Your task to perform on an android device: Open CNN.com Image 0: 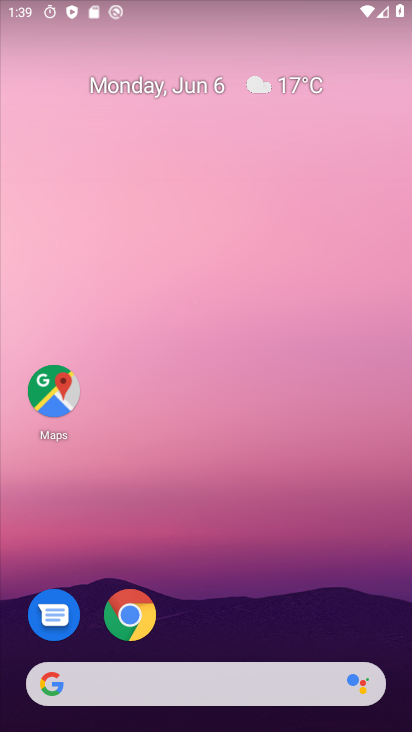
Step 0: click (401, 512)
Your task to perform on an android device: Open CNN.com Image 1: 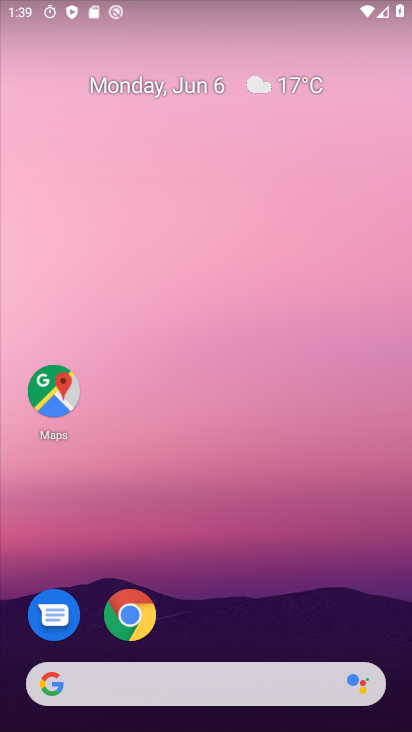
Step 1: drag from (212, 606) to (260, 258)
Your task to perform on an android device: Open CNN.com Image 2: 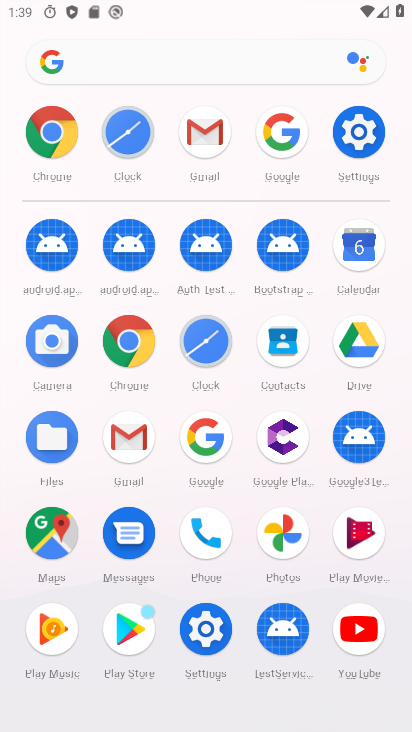
Step 2: click (151, 59)
Your task to perform on an android device: Open CNN.com Image 3: 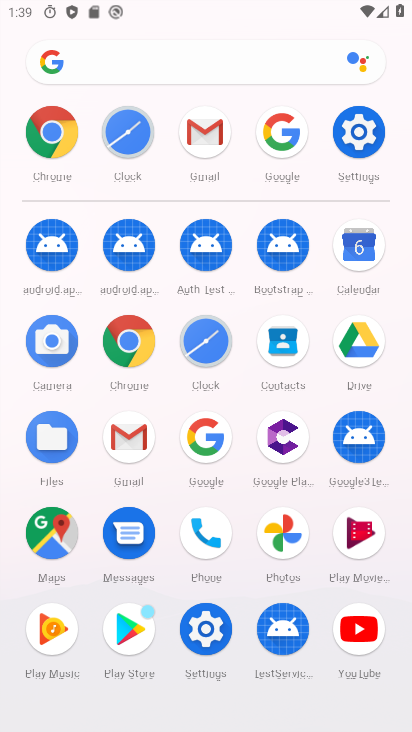
Step 3: click (150, 59)
Your task to perform on an android device: Open CNN.com Image 4: 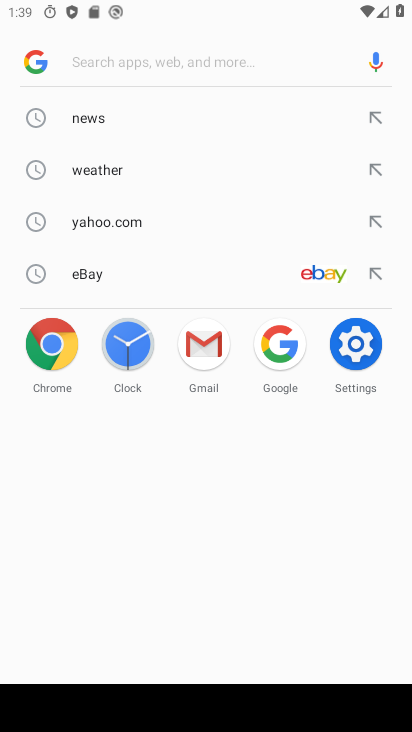
Step 4: type "CNN.com"
Your task to perform on an android device: Open CNN.com Image 5: 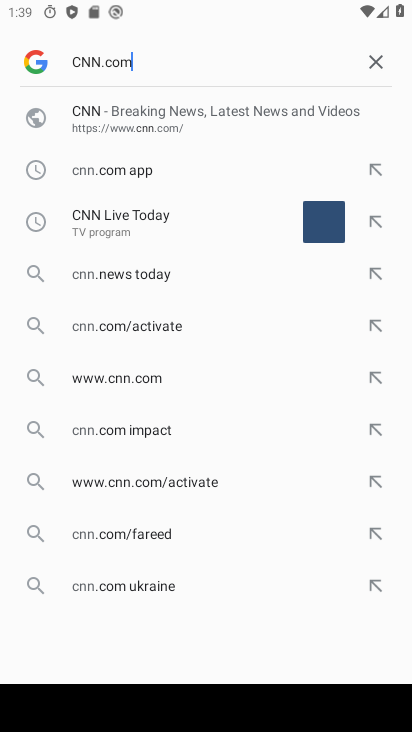
Step 5: type ""
Your task to perform on an android device: Open CNN.com Image 6: 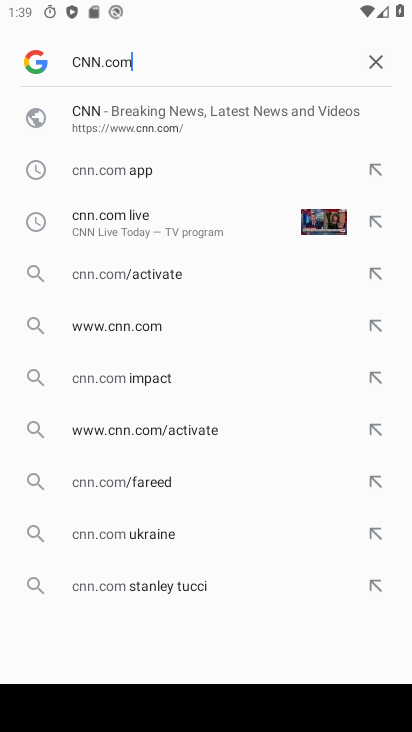
Step 6: click (160, 106)
Your task to perform on an android device: Open CNN.com Image 7: 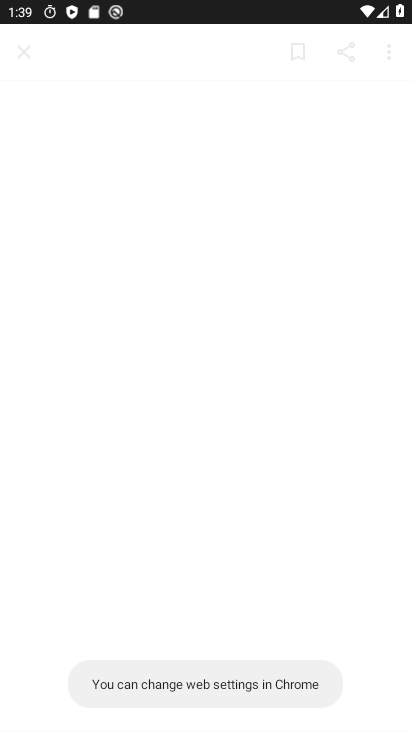
Step 7: task complete